Your task to perform on an android device: change alarm snooze length Image 0: 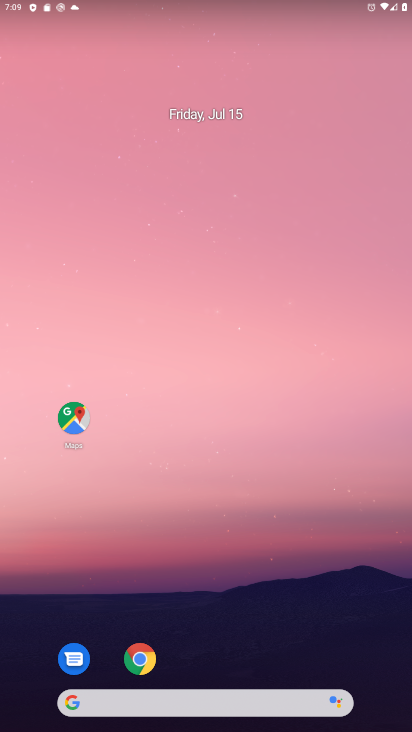
Step 0: drag from (391, 622) to (297, 236)
Your task to perform on an android device: change alarm snooze length Image 1: 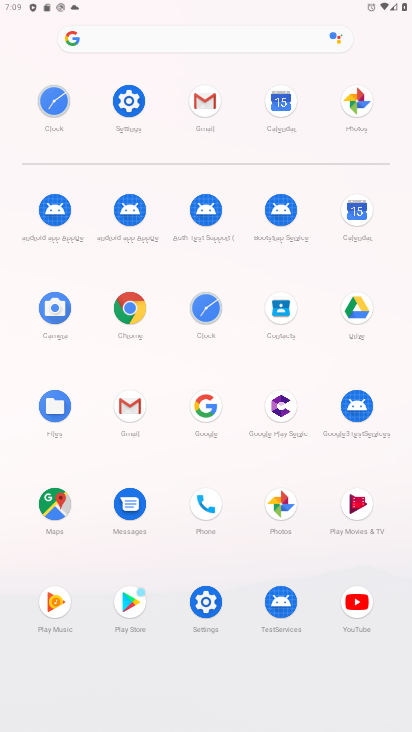
Step 1: click (206, 303)
Your task to perform on an android device: change alarm snooze length Image 2: 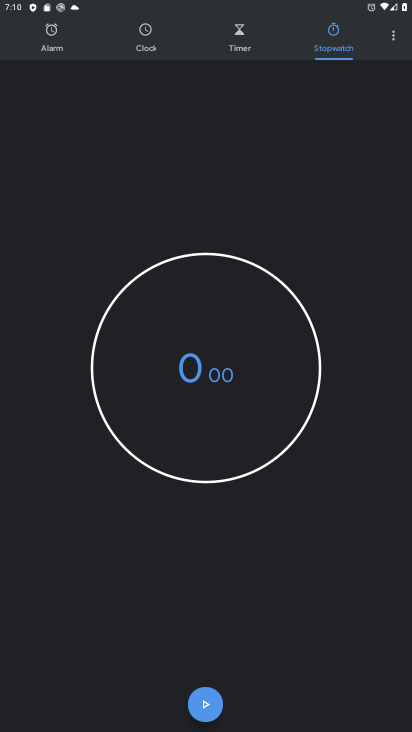
Step 2: click (395, 39)
Your task to perform on an android device: change alarm snooze length Image 3: 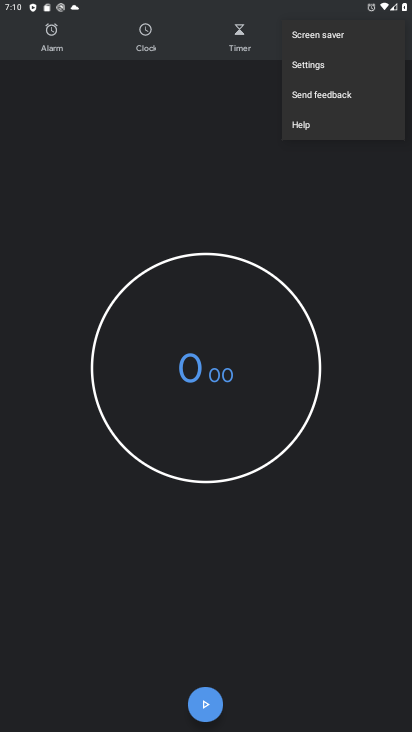
Step 3: click (307, 58)
Your task to perform on an android device: change alarm snooze length Image 4: 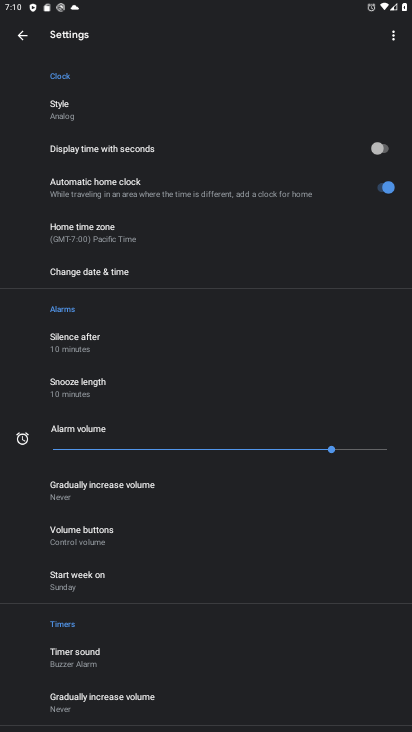
Step 4: click (81, 382)
Your task to perform on an android device: change alarm snooze length Image 5: 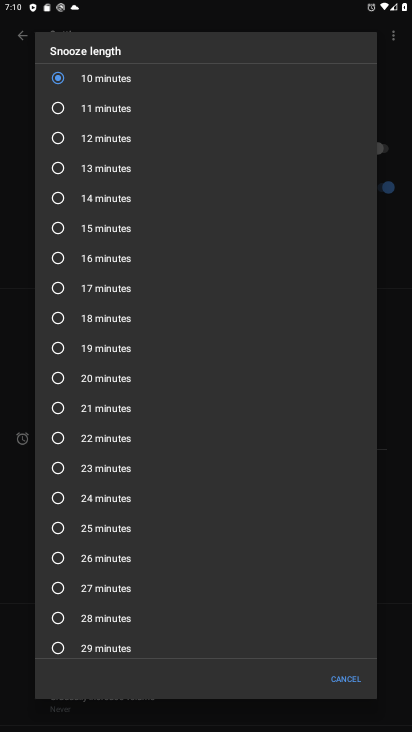
Step 5: click (58, 229)
Your task to perform on an android device: change alarm snooze length Image 6: 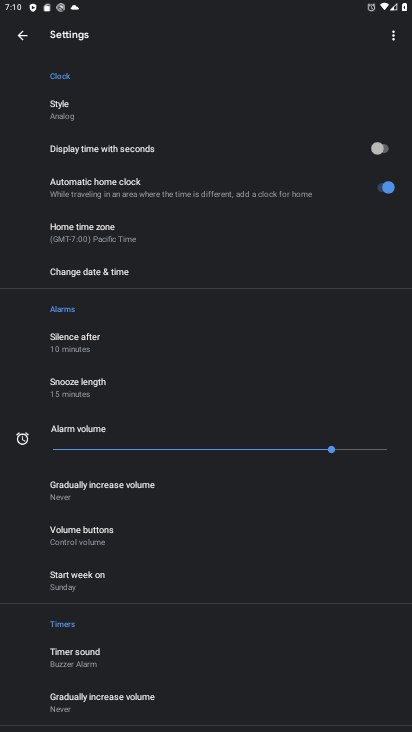
Step 6: task complete